Your task to perform on an android device: choose inbox layout in the gmail app Image 0: 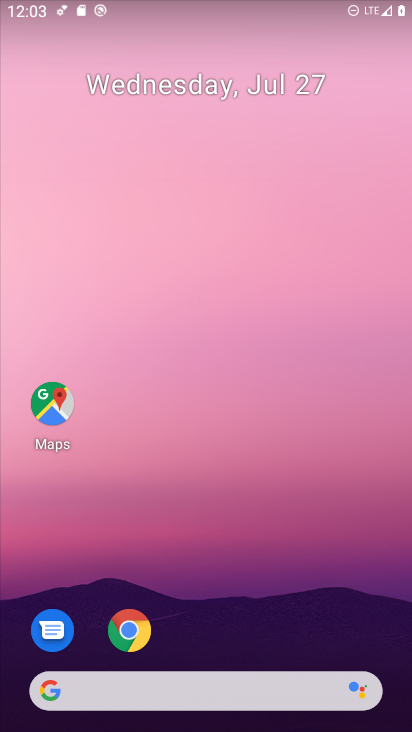
Step 0: drag from (375, 638) to (340, 231)
Your task to perform on an android device: choose inbox layout in the gmail app Image 1: 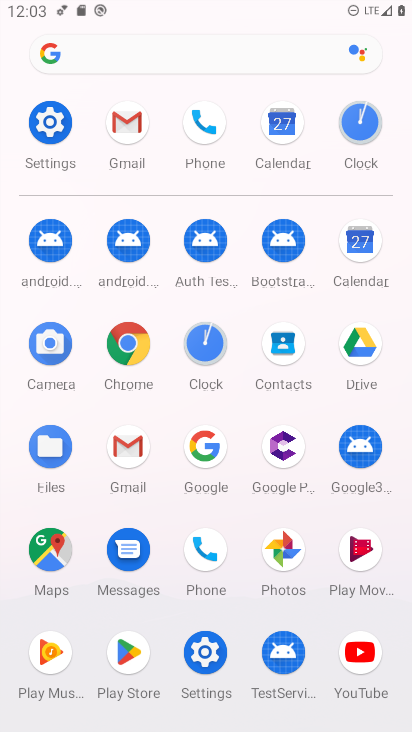
Step 1: click (132, 449)
Your task to perform on an android device: choose inbox layout in the gmail app Image 2: 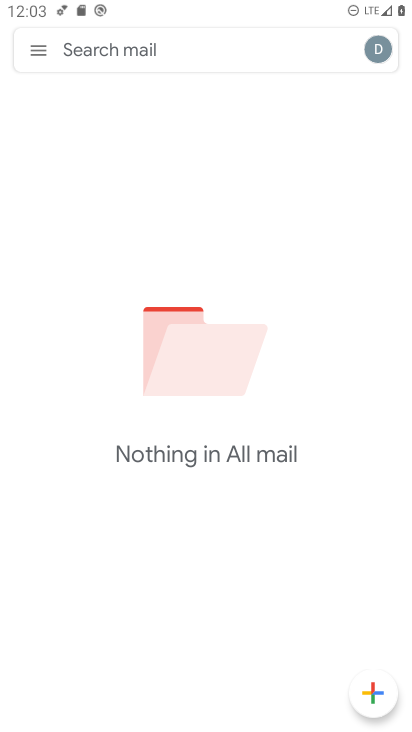
Step 2: click (39, 53)
Your task to perform on an android device: choose inbox layout in the gmail app Image 3: 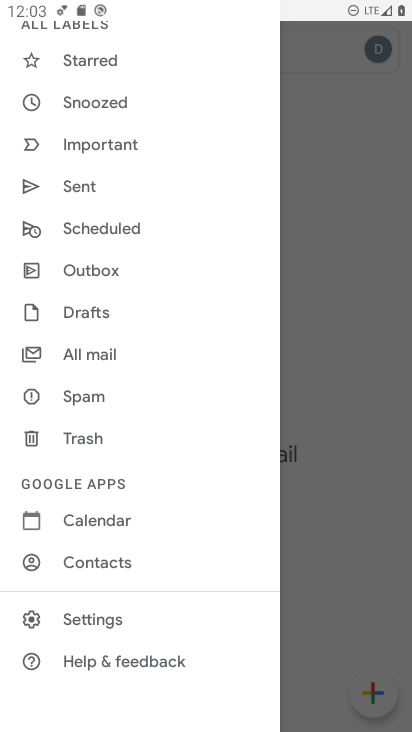
Step 3: click (110, 619)
Your task to perform on an android device: choose inbox layout in the gmail app Image 4: 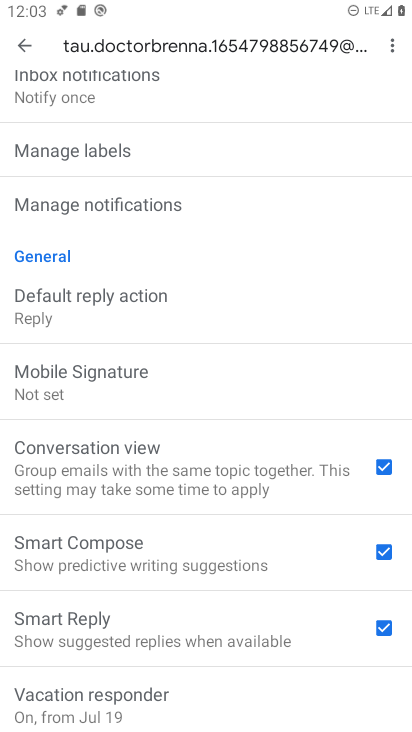
Step 4: drag from (226, 228) to (236, 523)
Your task to perform on an android device: choose inbox layout in the gmail app Image 5: 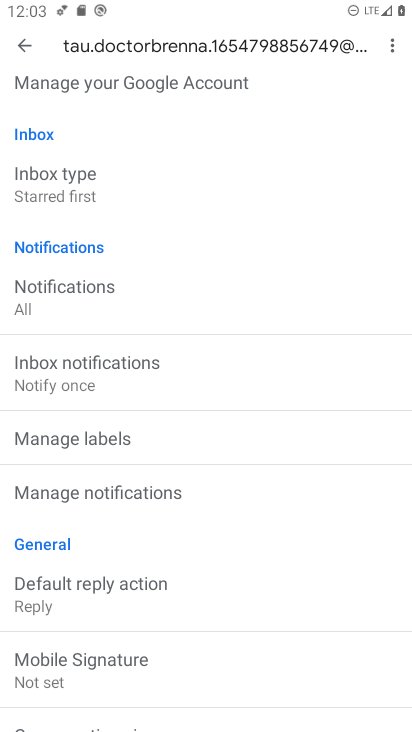
Step 5: click (45, 173)
Your task to perform on an android device: choose inbox layout in the gmail app Image 6: 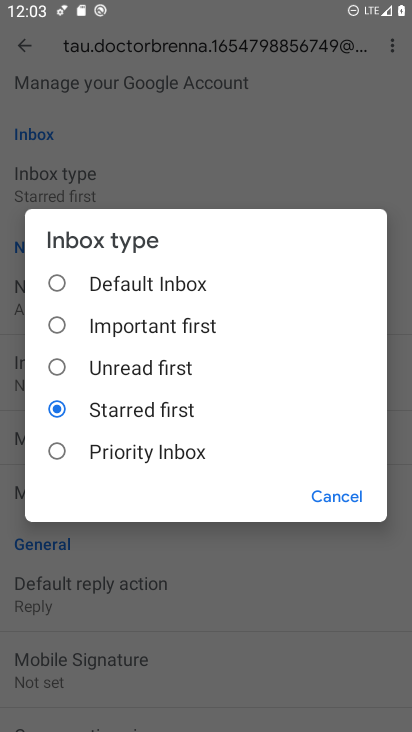
Step 6: click (58, 454)
Your task to perform on an android device: choose inbox layout in the gmail app Image 7: 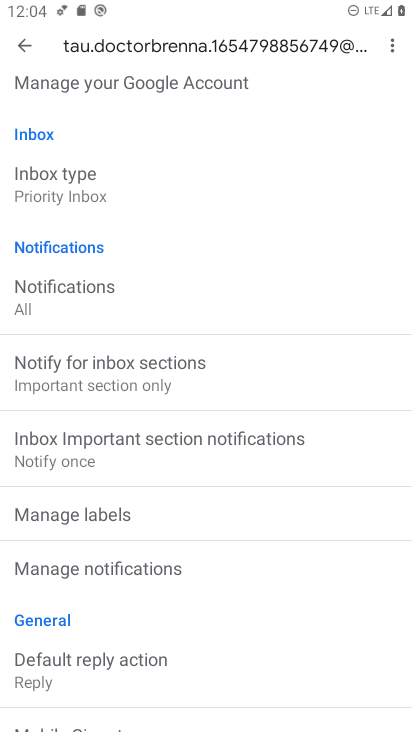
Step 7: task complete